Your task to perform on an android device: Show me recent news Image 0: 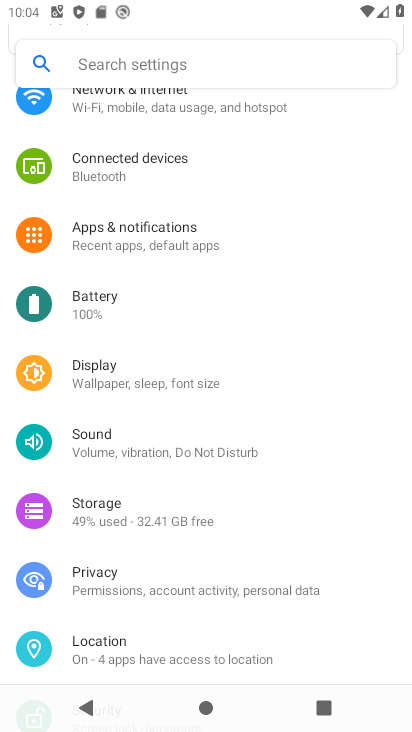
Step 0: press home button
Your task to perform on an android device: Show me recent news Image 1: 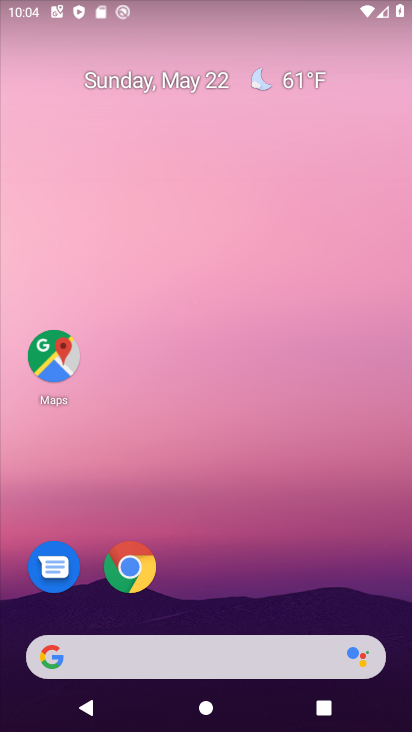
Step 1: click (167, 651)
Your task to perform on an android device: Show me recent news Image 2: 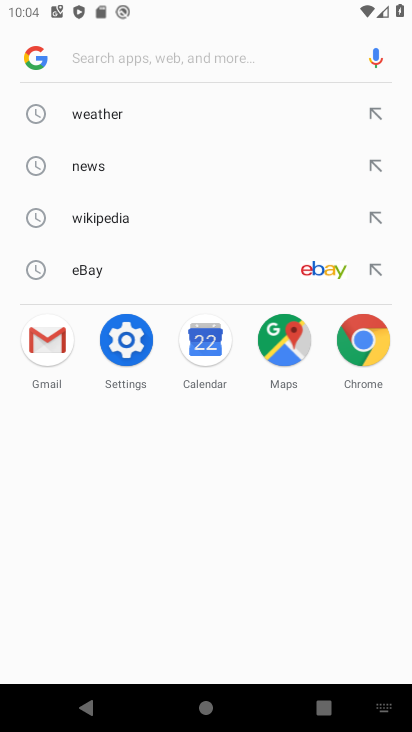
Step 2: click (125, 154)
Your task to perform on an android device: Show me recent news Image 3: 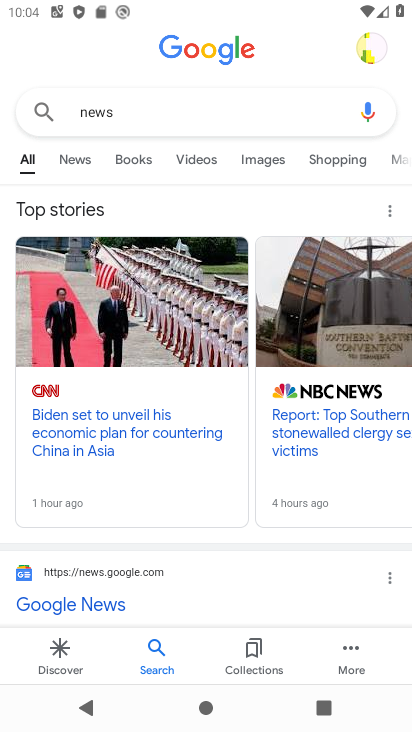
Step 3: click (74, 159)
Your task to perform on an android device: Show me recent news Image 4: 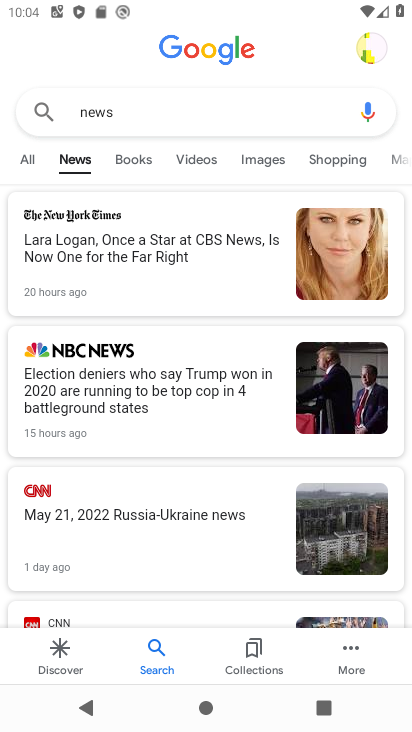
Step 4: task complete